Your task to perform on an android device: When is my next appointment? Image 0: 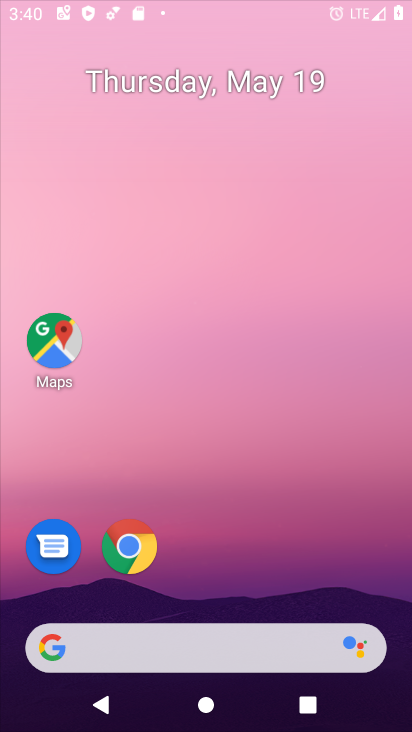
Step 0: press home button
Your task to perform on an android device: When is my next appointment? Image 1: 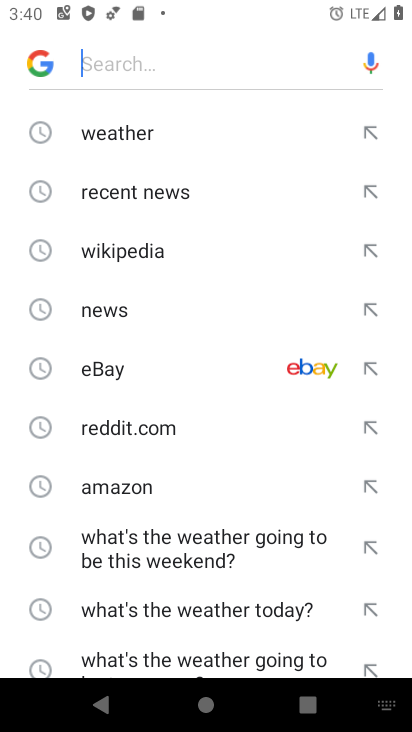
Step 1: drag from (222, 507) to (217, 131)
Your task to perform on an android device: When is my next appointment? Image 2: 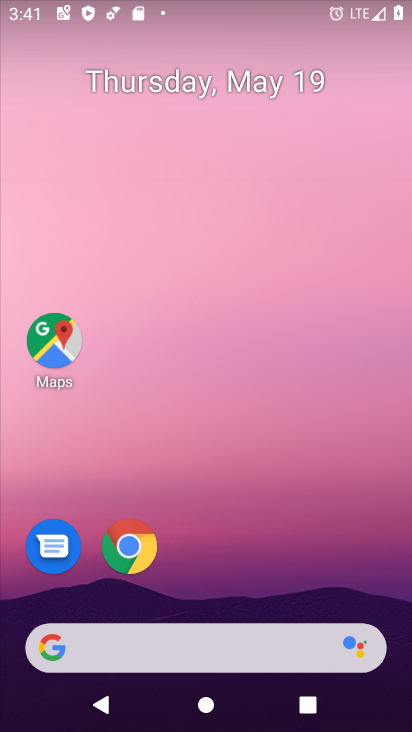
Step 2: drag from (218, 596) to (220, 103)
Your task to perform on an android device: When is my next appointment? Image 3: 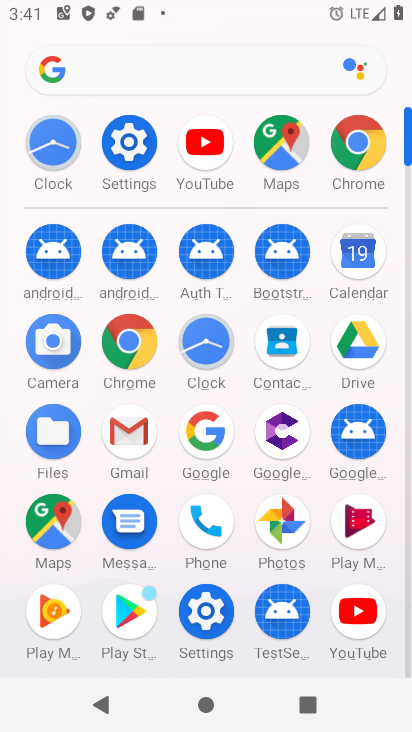
Step 3: click (359, 250)
Your task to perform on an android device: When is my next appointment? Image 4: 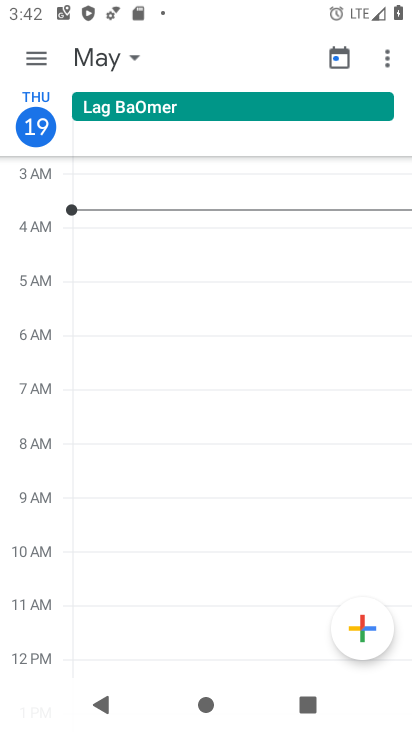
Step 4: click (64, 125)
Your task to perform on an android device: When is my next appointment? Image 5: 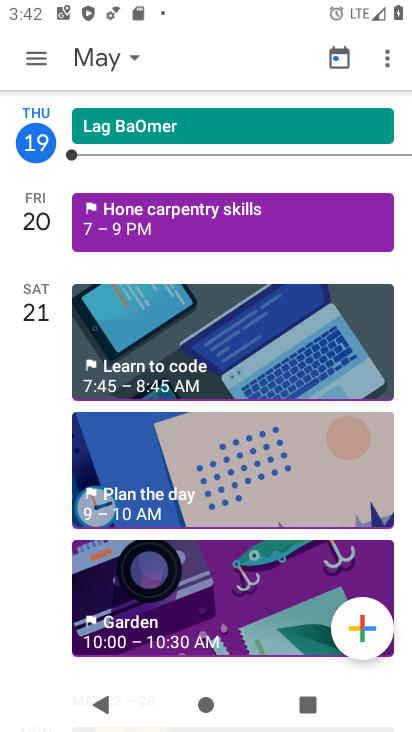
Step 5: task complete